Your task to perform on an android device: make emails show in primary in the gmail app Image 0: 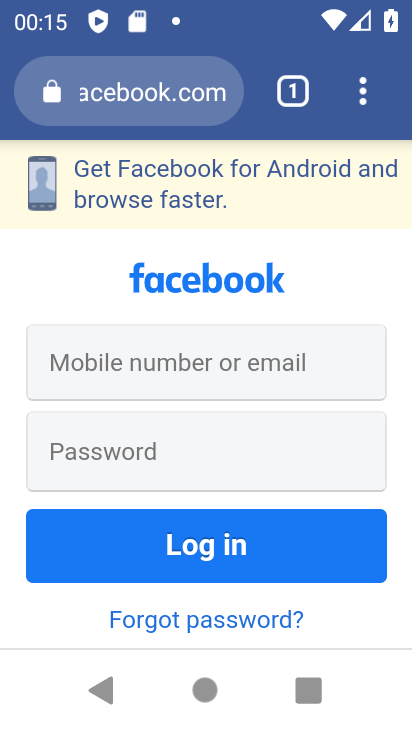
Step 0: press back button
Your task to perform on an android device: make emails show in primary in the gmail app Image 1: 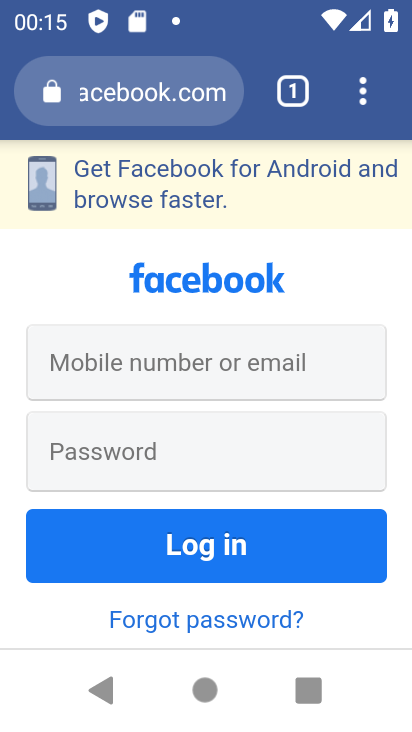
Step 1: press back button
Your task to perform on an android device: make emails show in primary in the gmail app Image 2: 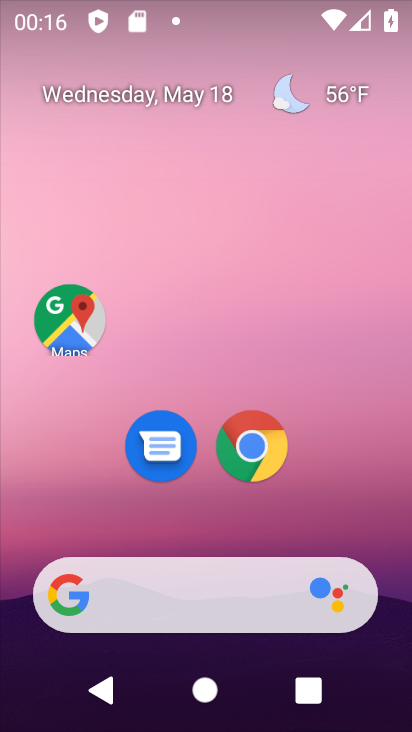
Step 2: drag from (235, 653) to (295, 725)
Your task to perform on an android device: make emails show in primary in the gmail app Image 3: 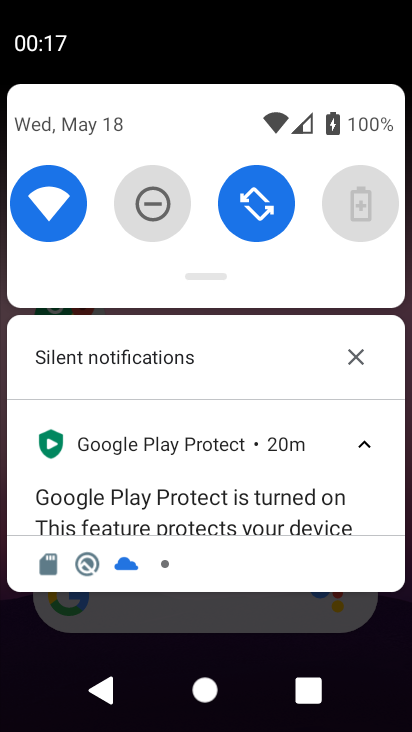
Step 3: drag from (259, 693) to (131, 172)
Your task to perform on an android device: make emails show in primary in the gmail app Image 4: 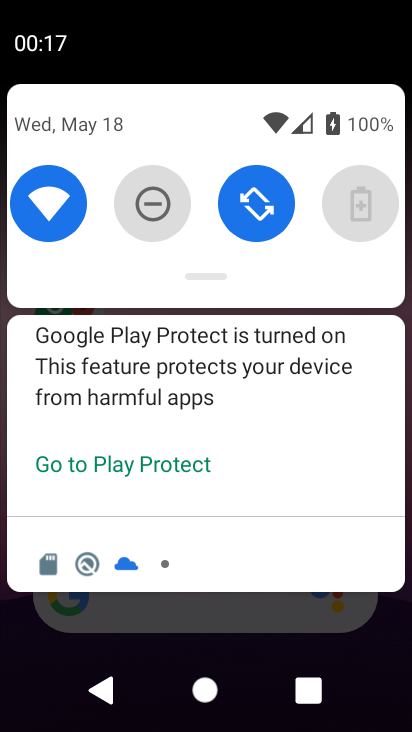
Step 4: press back button
Your task to perform on an android device: make emails show in primary in the gmail app Image 5: 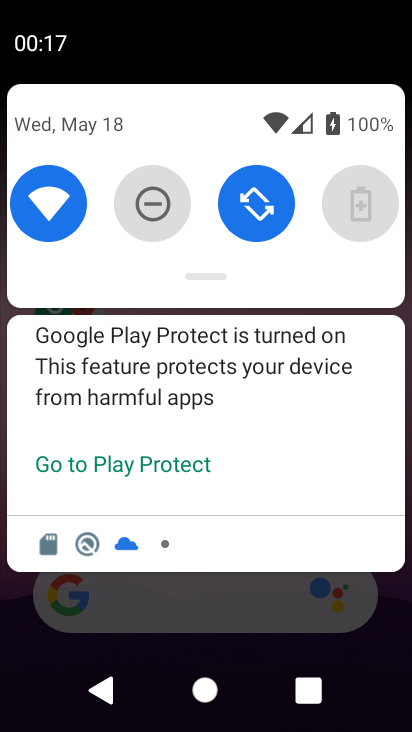
Step 5: press back button
Your task to perform on an android device: make emails show in primary in the gmail app Image 6: 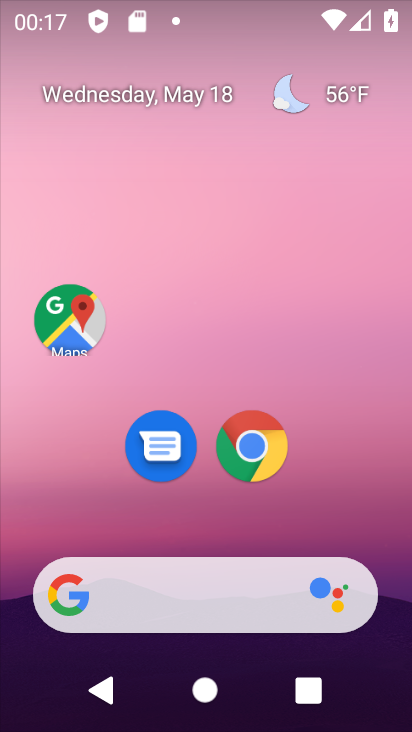
Step 6: press back button
Your task to perform on an android device: make emails show in primary in the gmail app Image 7: 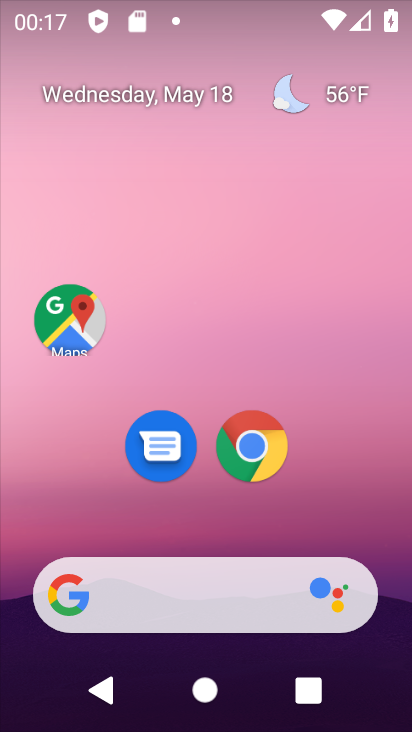
Step 7: press back button
Your task to perform on an android device: make emails show in primary in the gmail app Image 8: 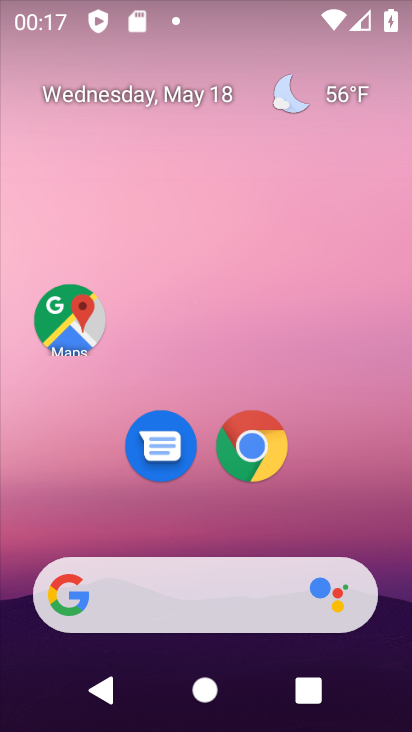
Step 8: drag from (369, 615) to (185, 93)
Your task to perform on an android device: make emails show in primary in the gmail app Image 9: 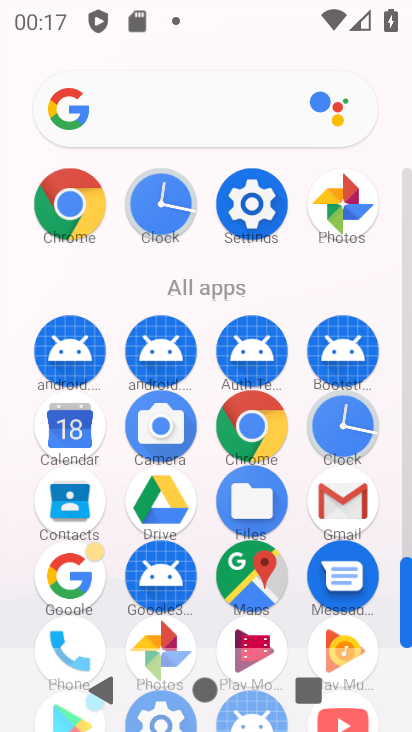
Step 9: click (351, 507)
Your task to perform on an android device: make emails show in primary in the gmail app Image 10: 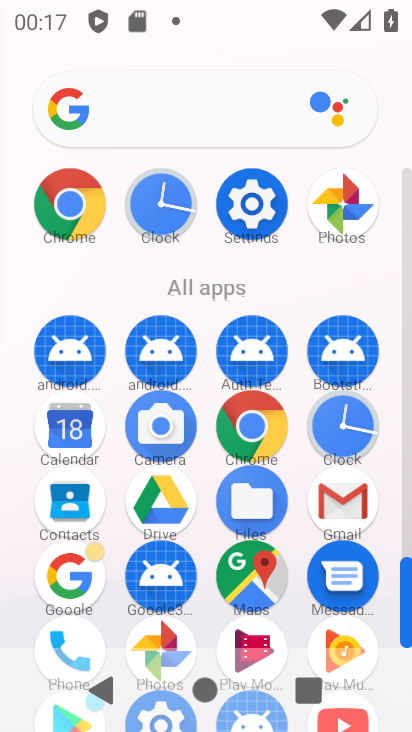
Step 10: click (351, 507)
Your task to perform on an android device: make emails show in primary in the gmail app Image 11: 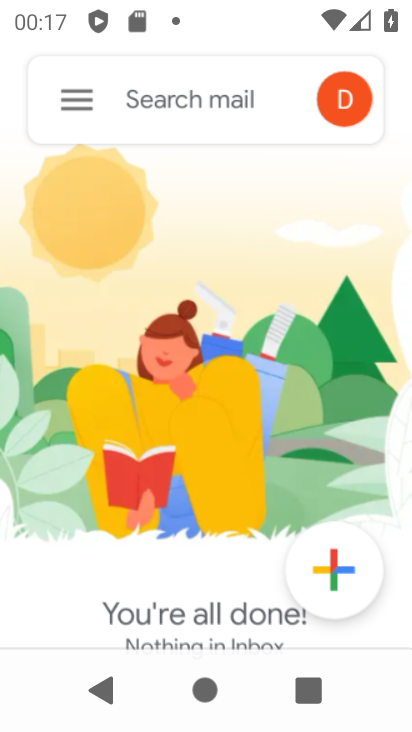
Step 11: click (351, 507)
Your task to perform on an android device: make emails show in primary in the gmail app Image 12: 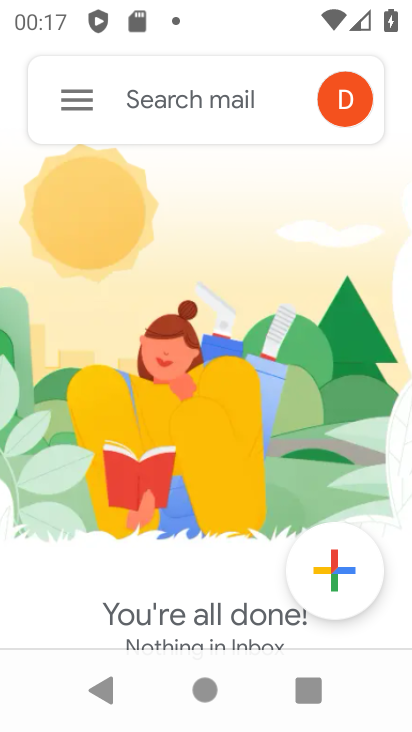
Step 12: click (80, 120)
Your task to perform on an android device: make emails show in primary in the gmail app Image 13: 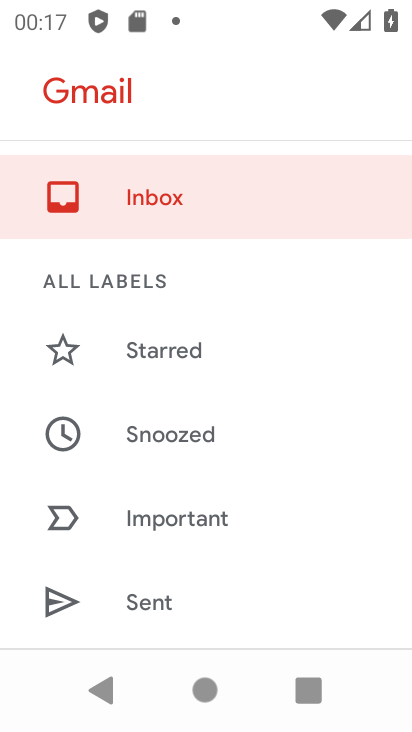
Step 13: drag from (225, 547) to (217, 193)
Your task to perform on an android device: make emails show in primary in the gmail app Image 14: 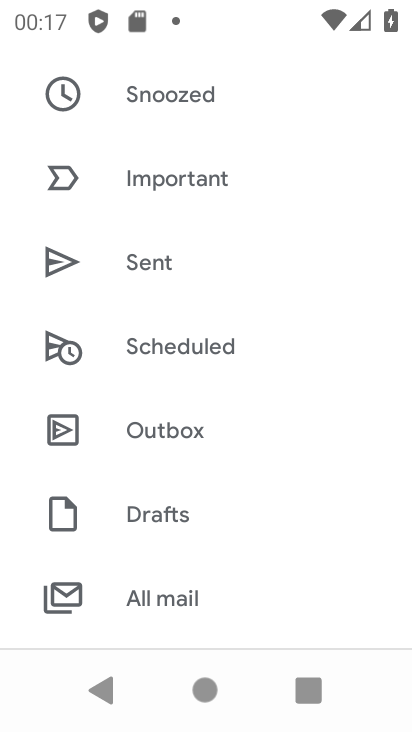
Step 14: drag from (250, 478) to (224, 66)
Your task to perform on an android device: make emails show in primary in the gmail app Image 15: 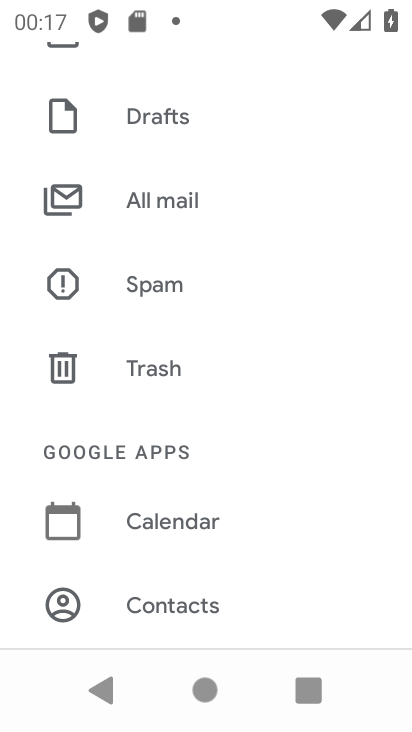
Step 15: drag from (233, 409) to (237, 183)
Your task to perform on an android device: make emails show in primary in the gmail app Image 16: 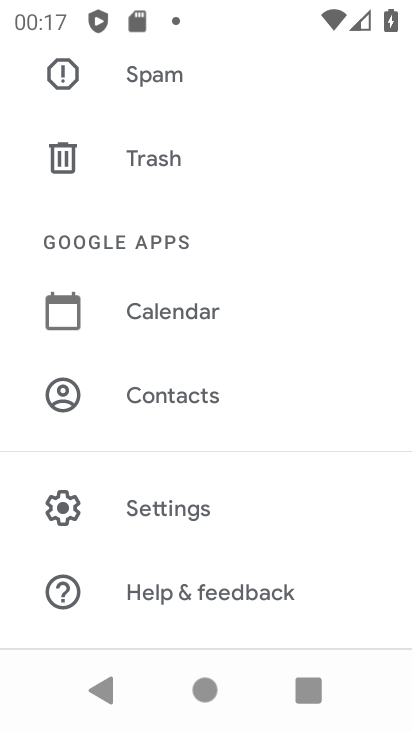
Step 16: click (151, 503)
Your task to perform on an android device: make emails show in primary in the gmail app Image 17: 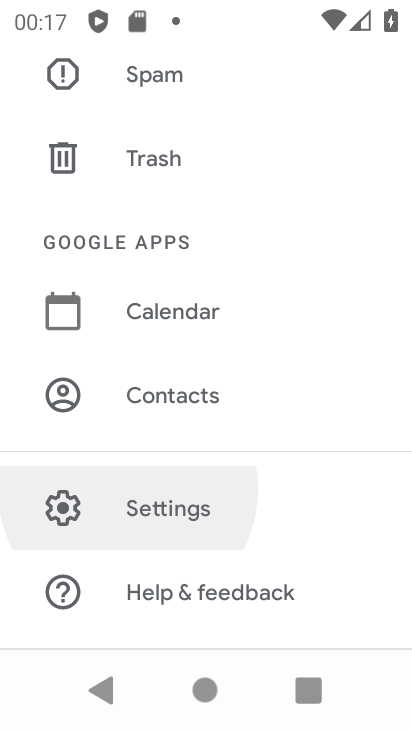
Step 17: click (151, 503)
Your task to perform on an android device: make emails show in primary in the gmail app Image 18: 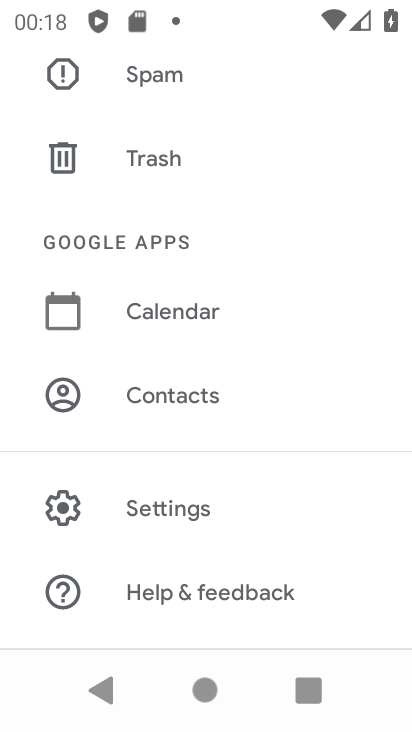
Step 18: click (154, 503)
Your task to perform on an android device: make emails show in primary in the gmail app Image 19: 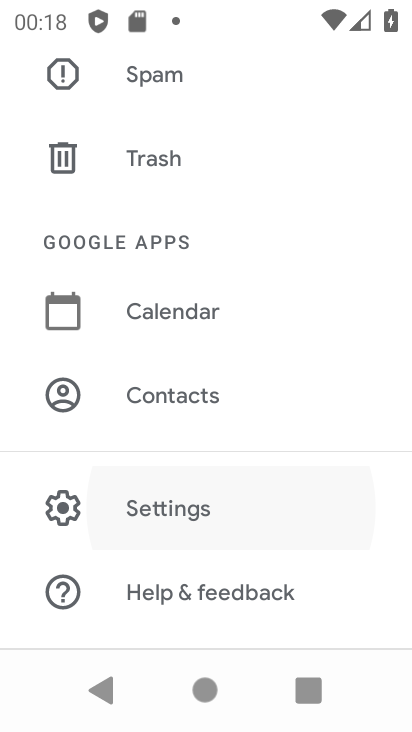
Step 19: click (155, 504)
Your task to perform on an android device: make emails show in primary in the gmail app Image 20: 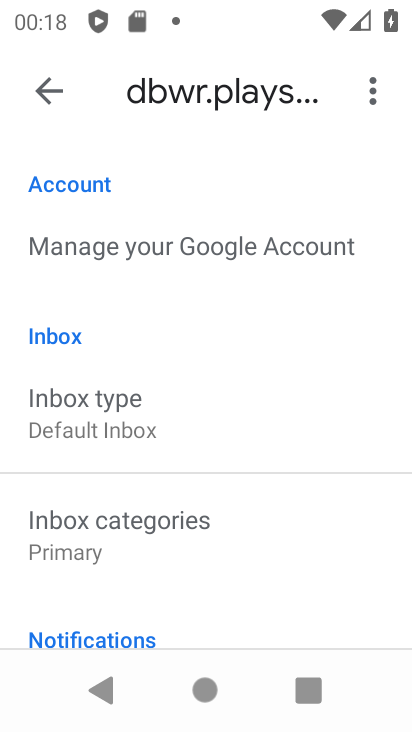
Step 20: click (85, 415)
Your task to perform on an android device: make emails show in primary in the gmail app Image 21: 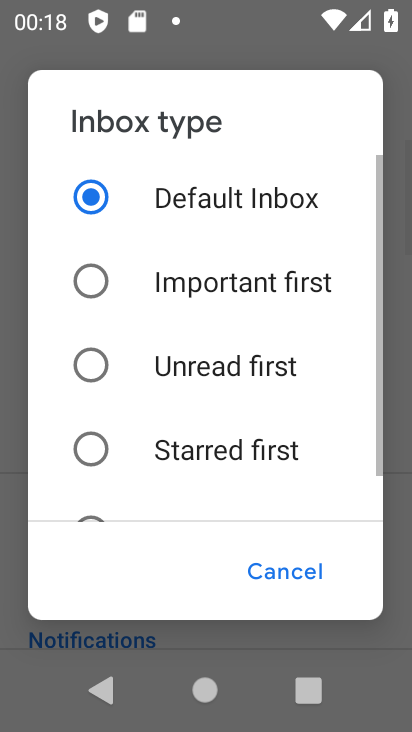
Step 21: click (282, 572)
Your task to perform on an android device: make emails show in primary in the gmail app Image 22: 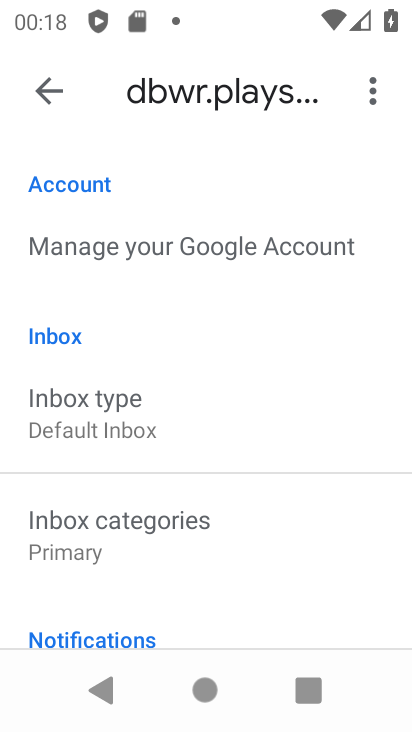
Step 22: click (88, 550)
Your task to perform on an android device: make emails show in primary in the gmail app Image 23: 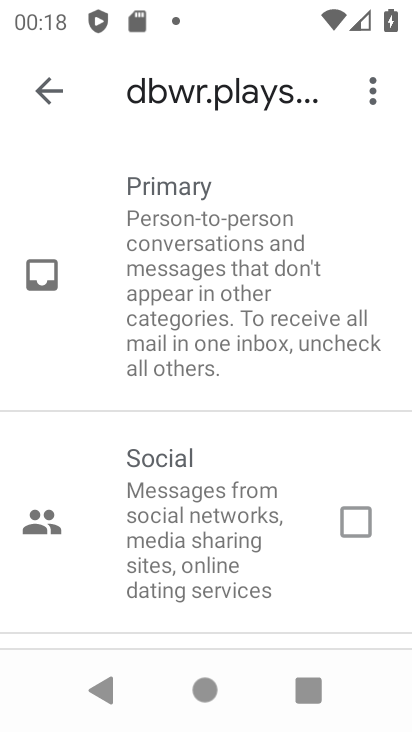
Step 23: click (152, 209)
Your task to perform on an android device: make emails show in primary in the gmail app Image 24: 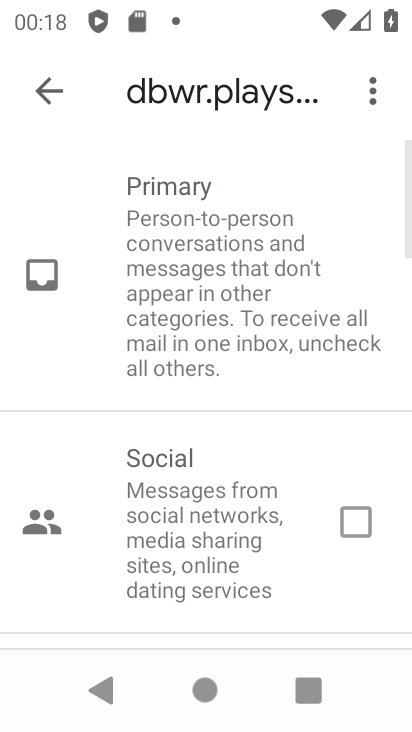
Step 24: click (44, 95)
Your task to perform on an android device: make emails show in primary in the gmail app Image 25: 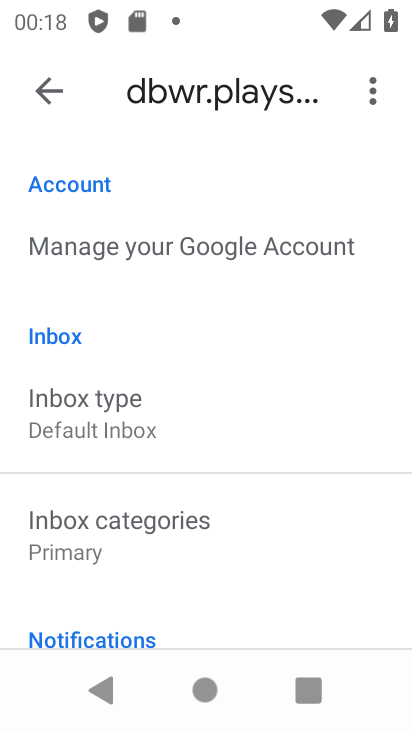
Step 25: task complete